Your task to perform on an android device: toggle airplane mode Image 0: 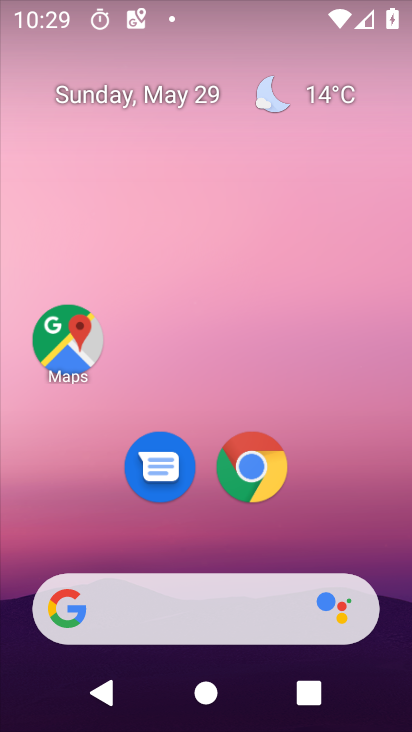
Step 0: drag from (211, 543) to (163, 177)
Your task to perform on an android device: toggle airplane mode Image 1: 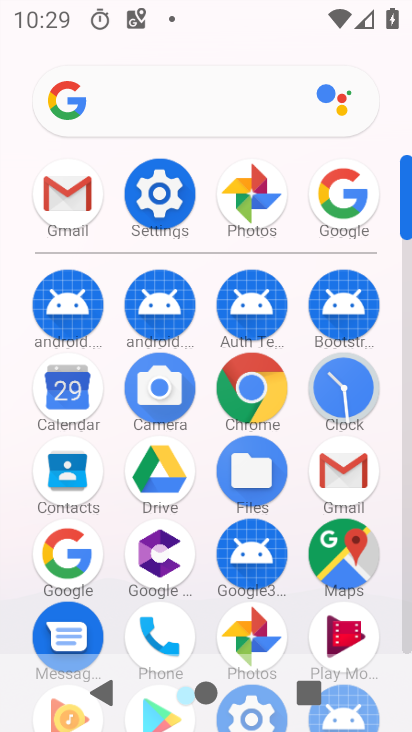
Step 1: click (163, 177)
Your task to perform on an android device: toggle airplane mode Image 2: 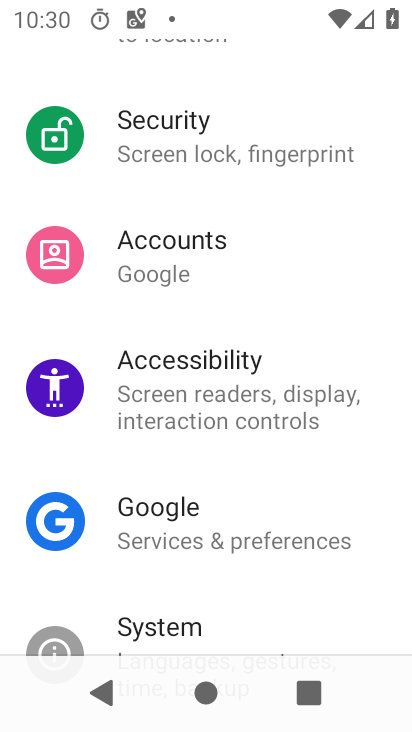
Step 2: drag from (163, 177) to (181, 543)
Your task to perform on an android device: toggle airplane mode Image 3: 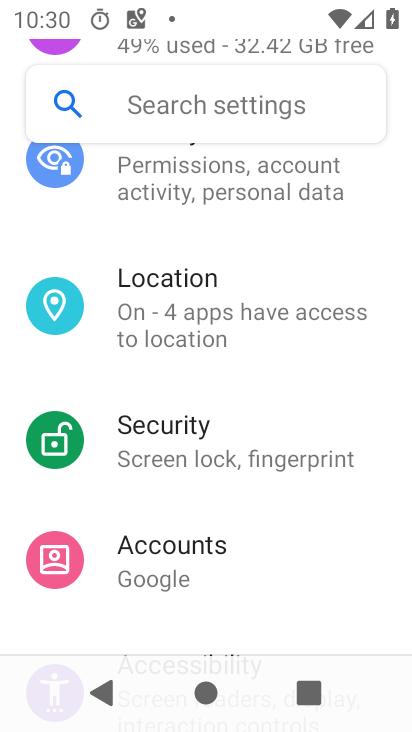
Step 3: drag from (178, 263) to (208, 565)
Your task to perform on an android device: toggle airplane mode Image 4: 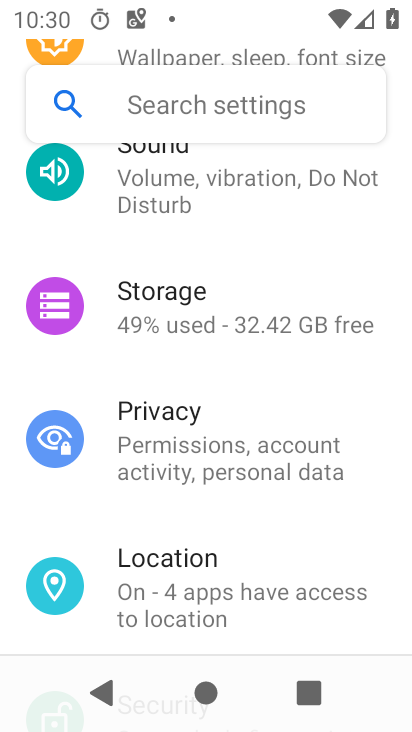
Step 4: drag from (195, 200) to (233, 529)
Your task to perform on an android device: toggle airplane mode Image 5: 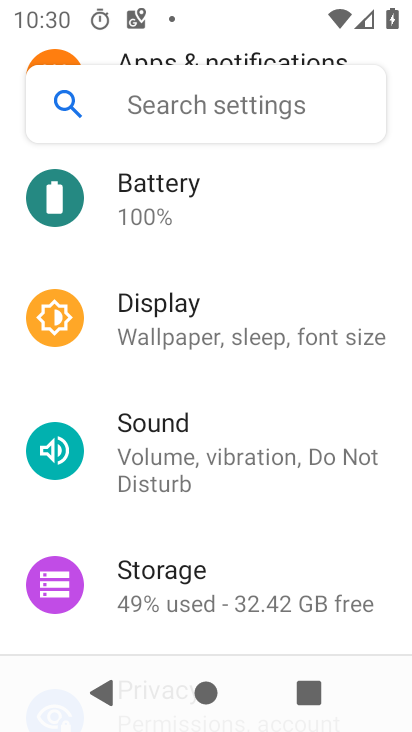
Step 5: drag from (215, 214) to (260, 522)
Your task to perform on an android device: toggle airplane mode Image 6: 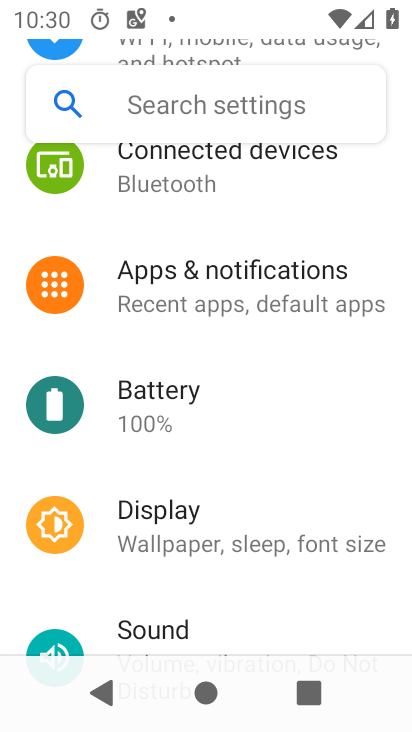
Step 6: drag from (226, 212) to (235, 610)
Your task to perform on an android device: toggle airplane mode Image 7: 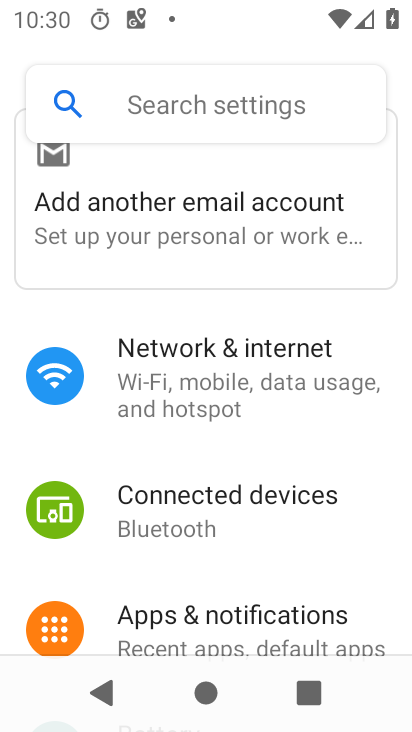
Step 7: click (210, 363)
Your task to perform on an android device: toggle airplane mode Image 8: 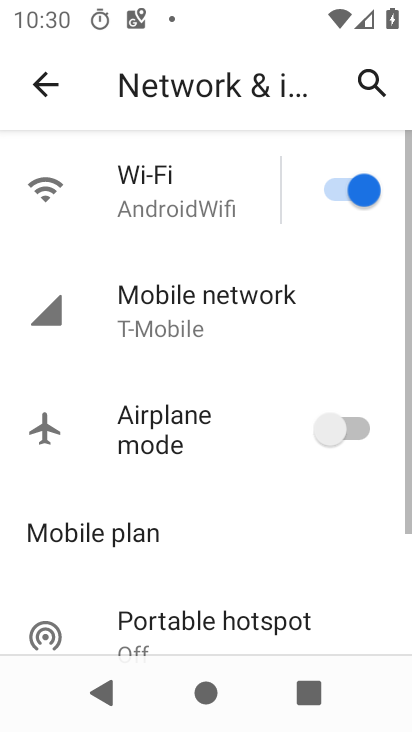
Step 8: click (349, 424)
Your task to perform on an android device: toggle airplane mode Image 9: 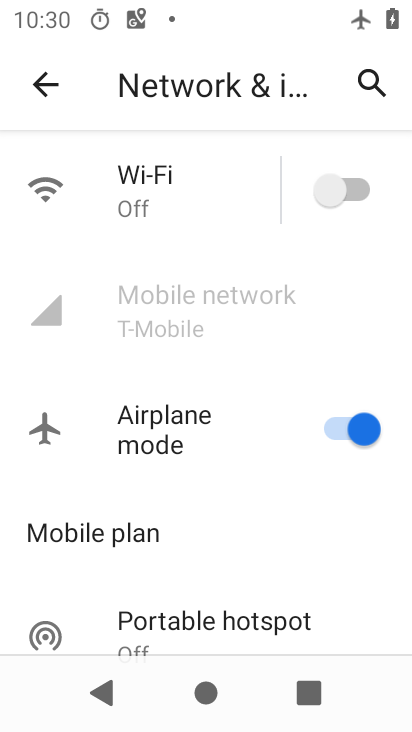
Step 9: task complete